Your task to perform on an android device: move an email to a new category in the gmail app Image 0: 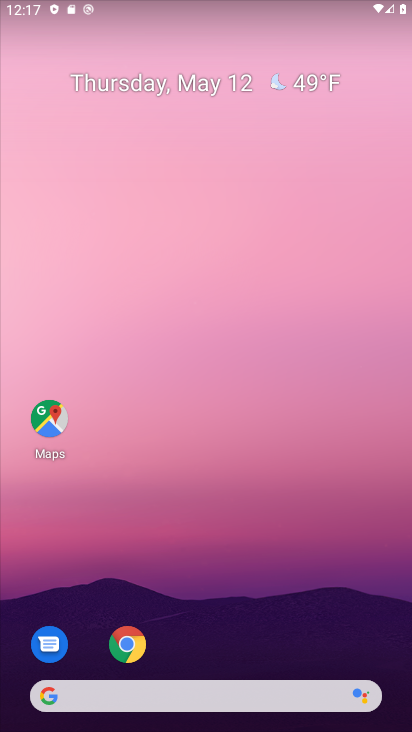
Step 0: drag from (273, 574) to (234, 197)
Your task to perform on an android device: move an email to a new category in the gmail app Image 1: 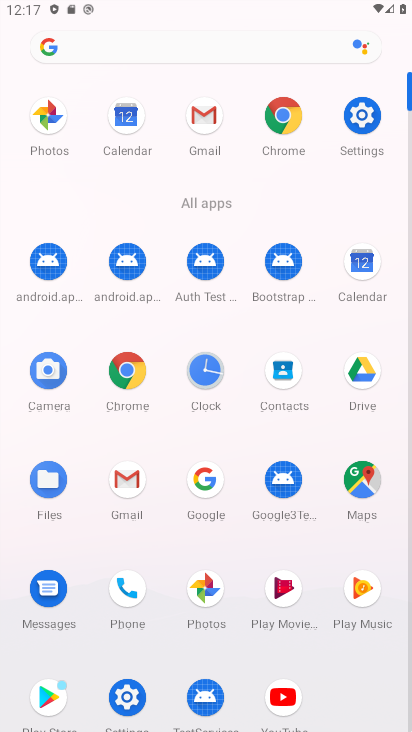
Step 1: click (204, 128)
Your task to perform on an android device: move an email to a new category in the gmail app Image 2: 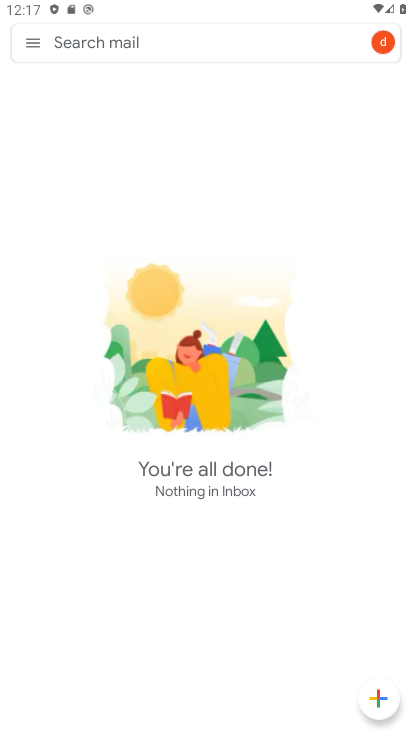
Step 2: click (31, 41)
Your task to perform on an android device: move an email to a new category in the gmail app Image 3: 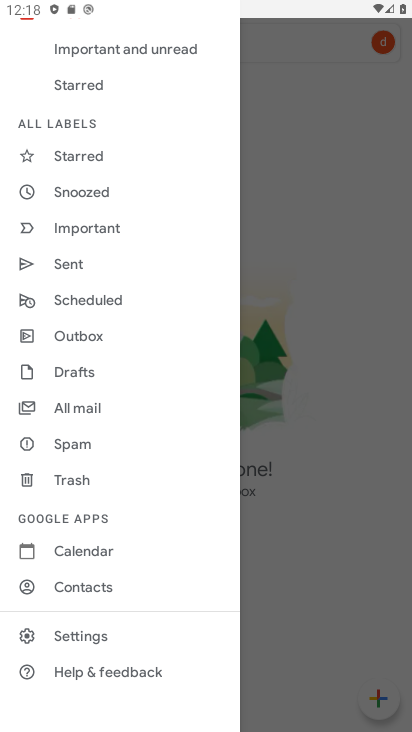
Step 3: click (70, 408)
Your task to perform on an android device: move an email to a new category in the gmail app Image 4: 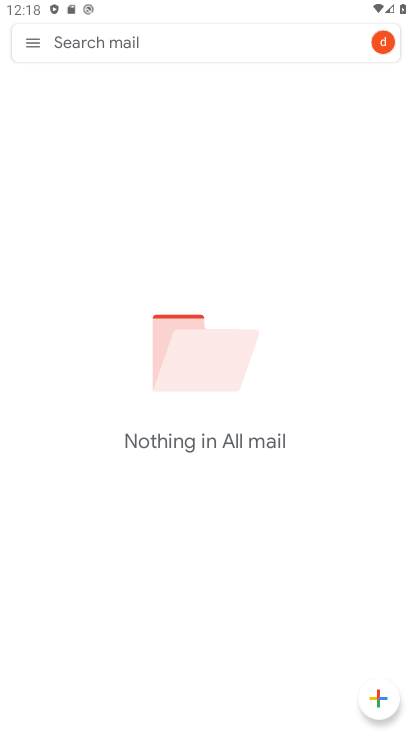
Step 4: task complete